Your task to perform on an android device: check data usage Image 0: 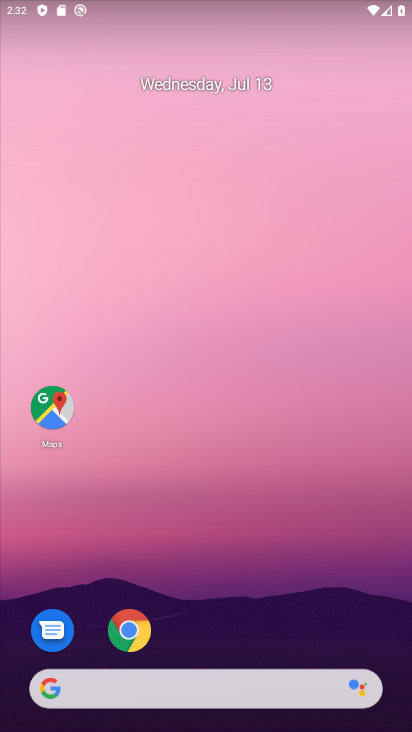
Step 0: drag from (323, 598) to (321, 152)
Your task to perform on an android device: check data usage Image 1: 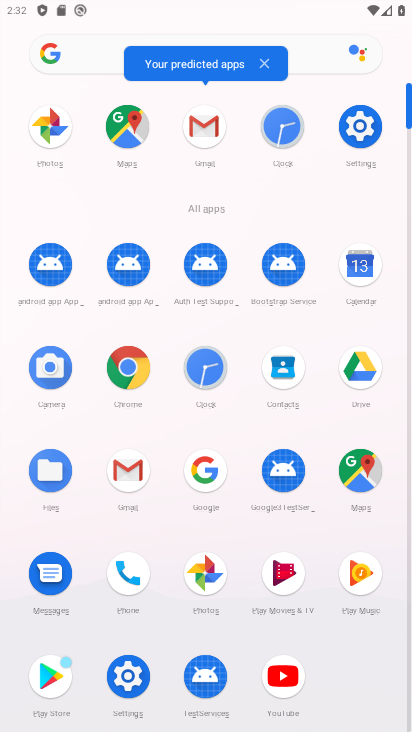
Step 1: click (361, 134)
Your task to perform on an android device: check data usage Image 2: 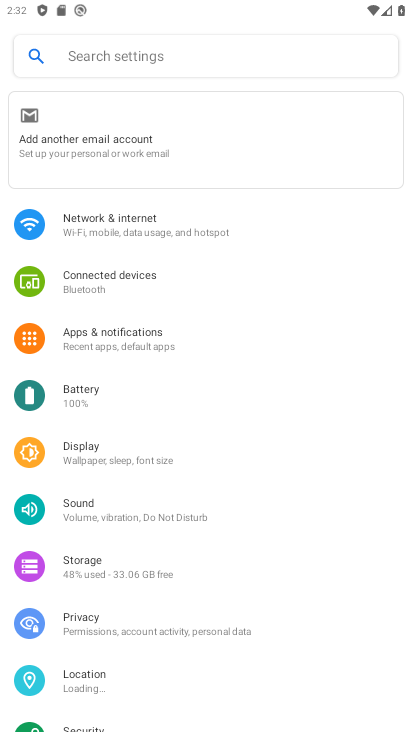
Step 2: drag from (309, 486) to (301, 329)
Your task to perform on an android device: check data usage Image 3: 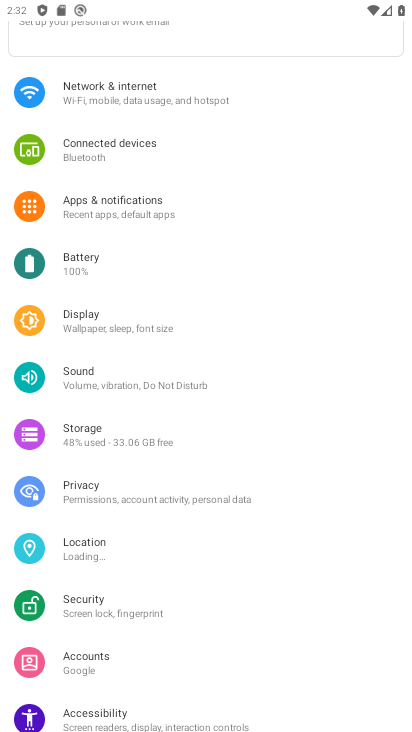
Step 3: drag from (320, 452) to (316, 281)
Your task to perform on an android device: check data usage Image 4: 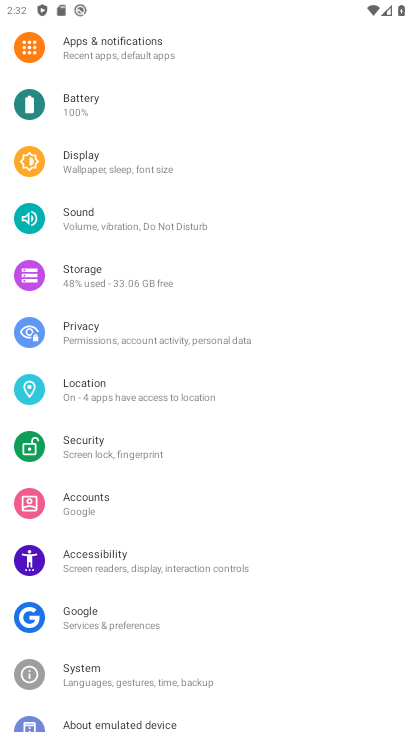
Step 4: drag from (315, 402) to (312, 249)
Your task to perform on an android device: check data usage Image 5: 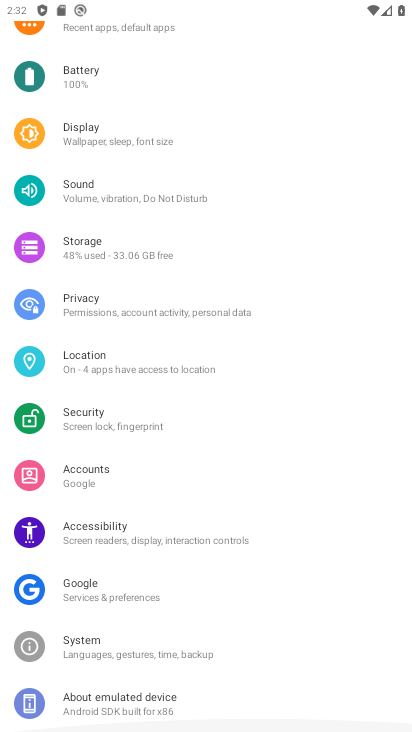
Step 5: drag from (312, 175) to (312, 285)
Your task to perform on an android device: check data usage Image 6: 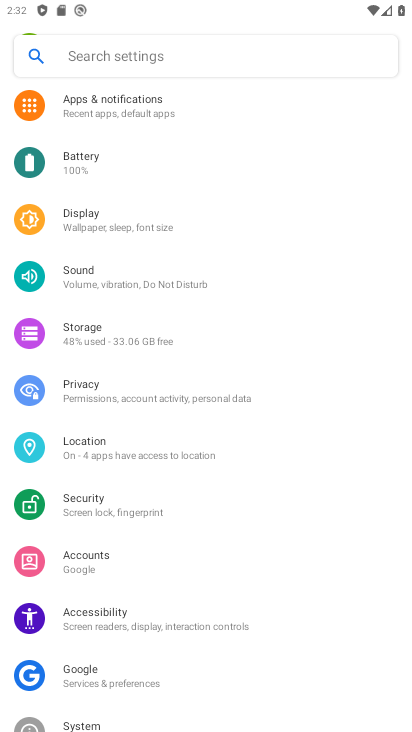
Step 6: drag from (325, 229) to (338, 333)
Your task to perform on an android device: check data usage Image 7: 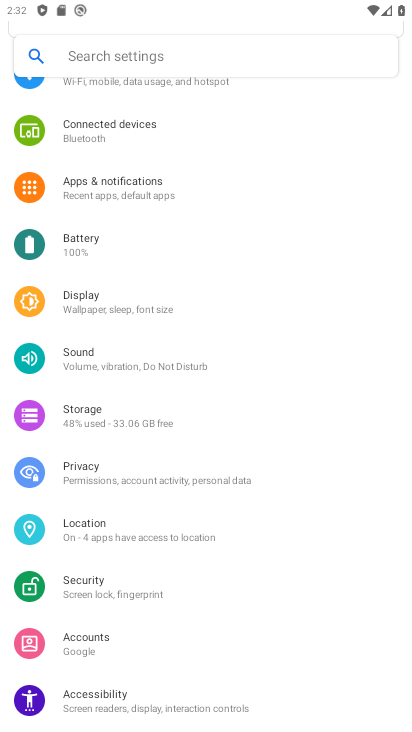
Step 7: drag from (327, 232) to (327, 374)
Your task to perform on an android device: check data usage Image 8: 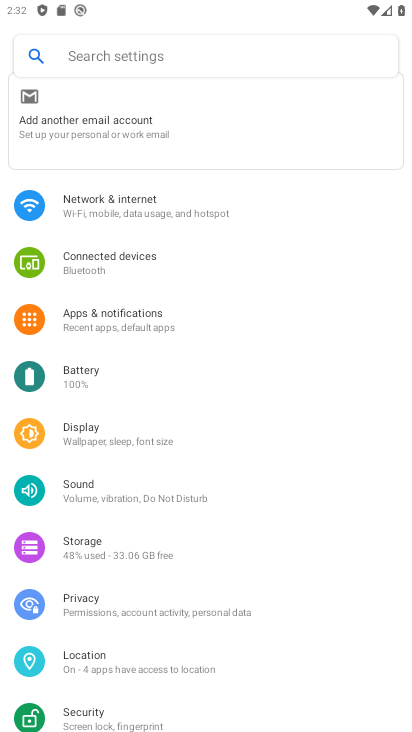
Step 8: click (225, 208)
Your task to perform on an android device: check data usage Image 9: 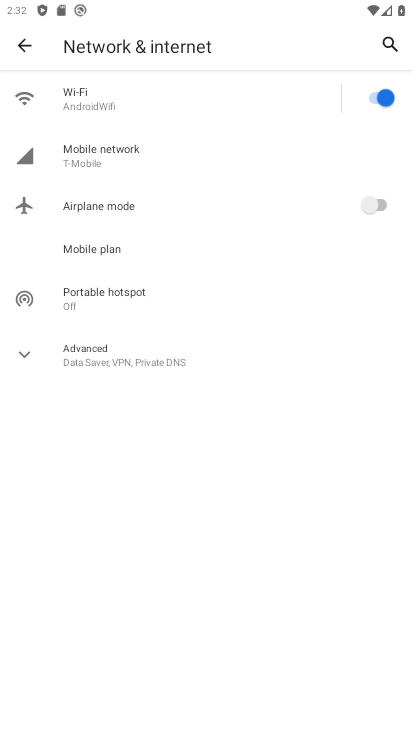
Step 9: click (105, 157)
Your task to perform on an android device: check data usage Image 10: 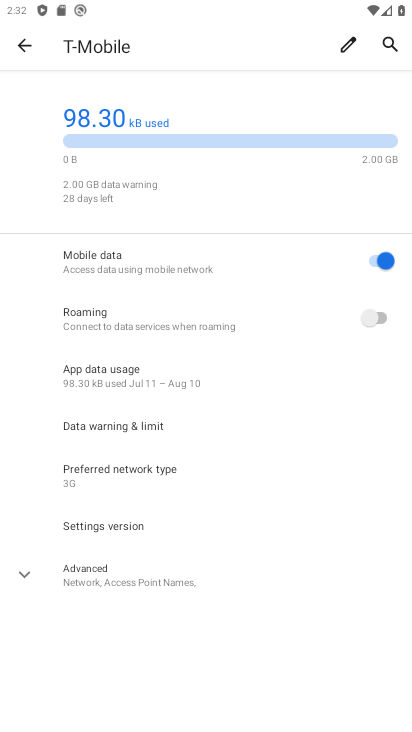
Step 10: click (169, 376)
Your task to perform on an android device: check data usage Image 11: 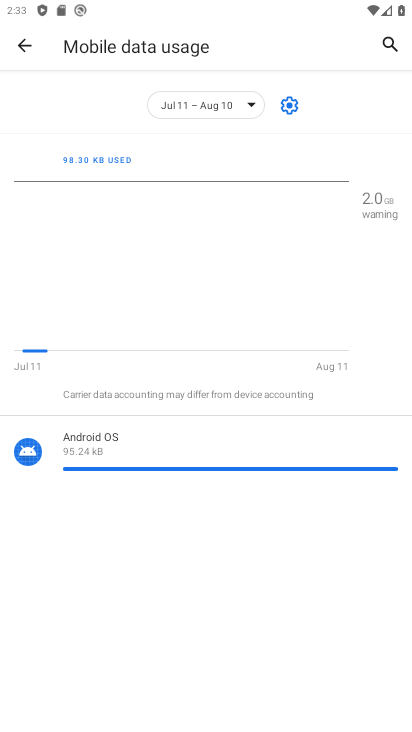
Step 11: task complete